Your task to perform on an android device: open app "Gboard" (install if not already installed) Image 0: 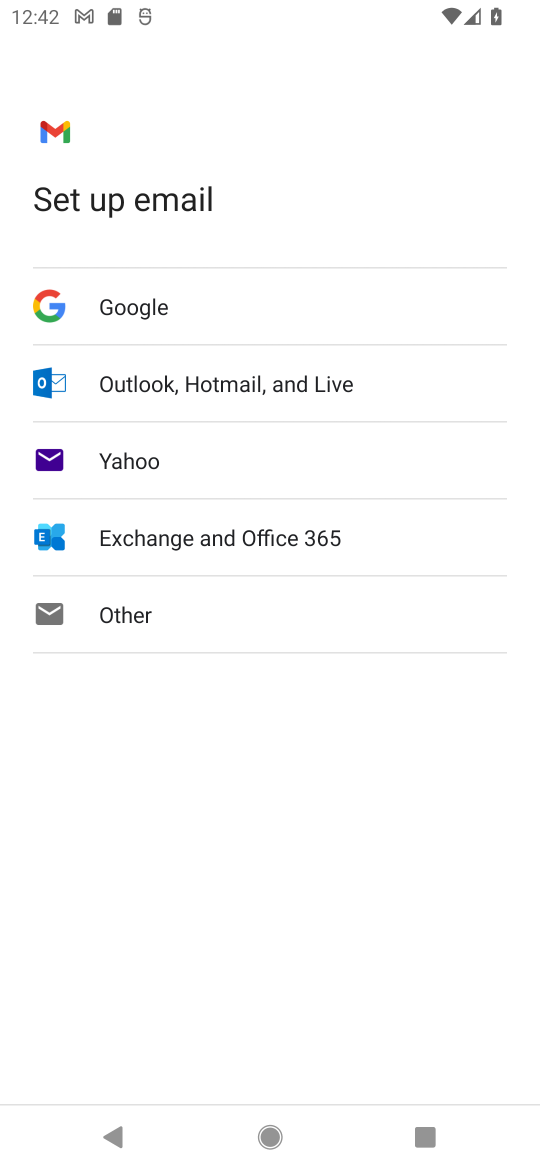
Step 0: press home button
Your task to perform on an android device: open app "Gboard" (install if not already installed) Image 1: 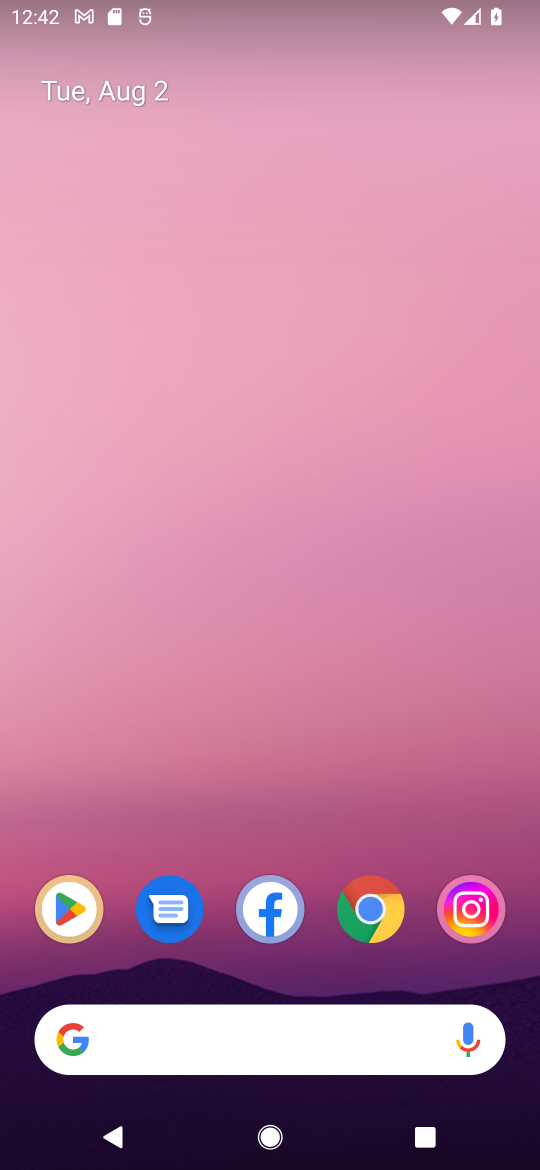
Step 1: click (65, 916)
Your task to perform on an android device: open app "Gboard" (install if not already installed) Image 2: 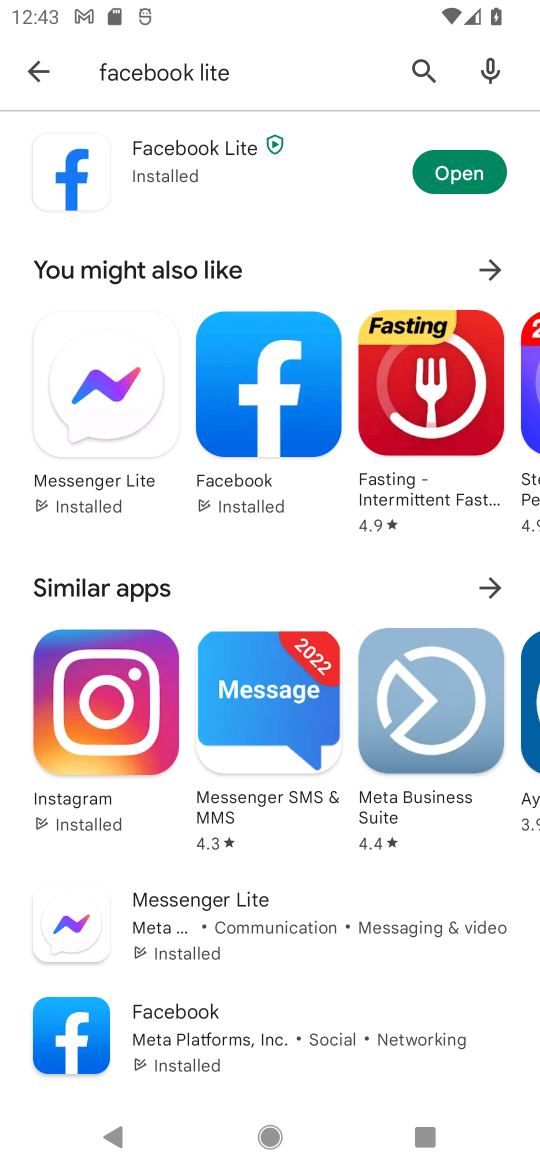
Step 2: click (415, 72)
Your task to perform on an android device: open app "Gboard" (install if not already installed) Image 3: 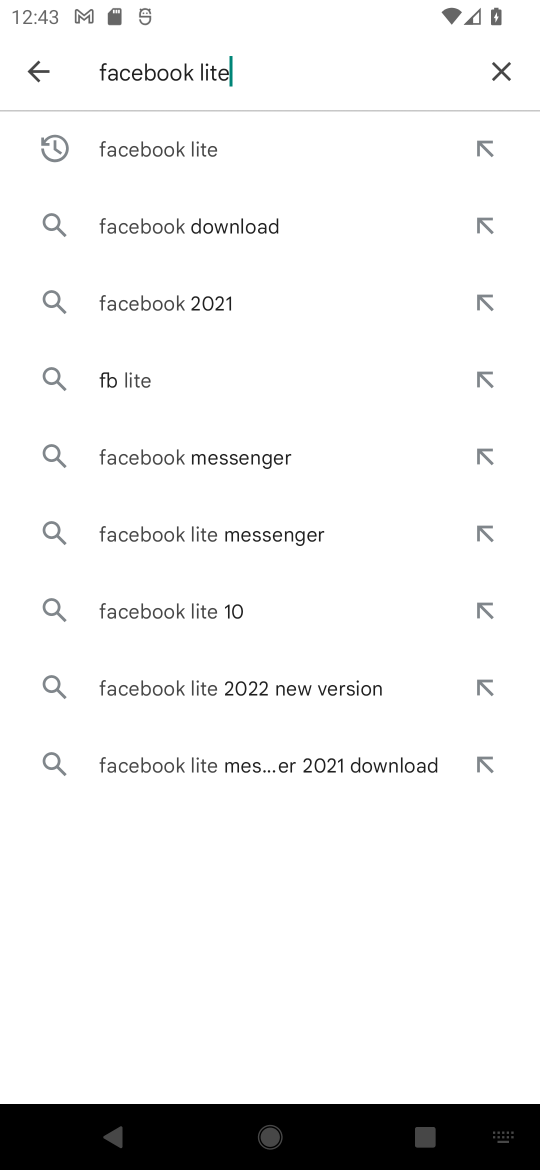
Step 3: click (518, 60)
Your task to perform on an android device: open app "Gboard" (install if not already installed) Image 4: 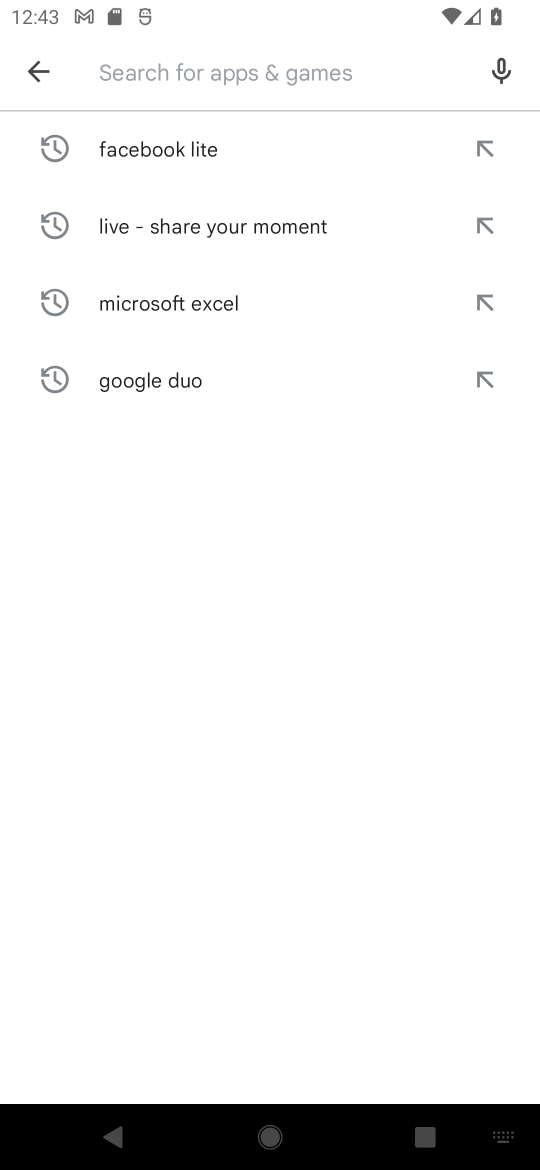
Step 4: type "Gboard"
Your task to perform on an android device: open app "Gboard" (install if not already installed) Image 5: 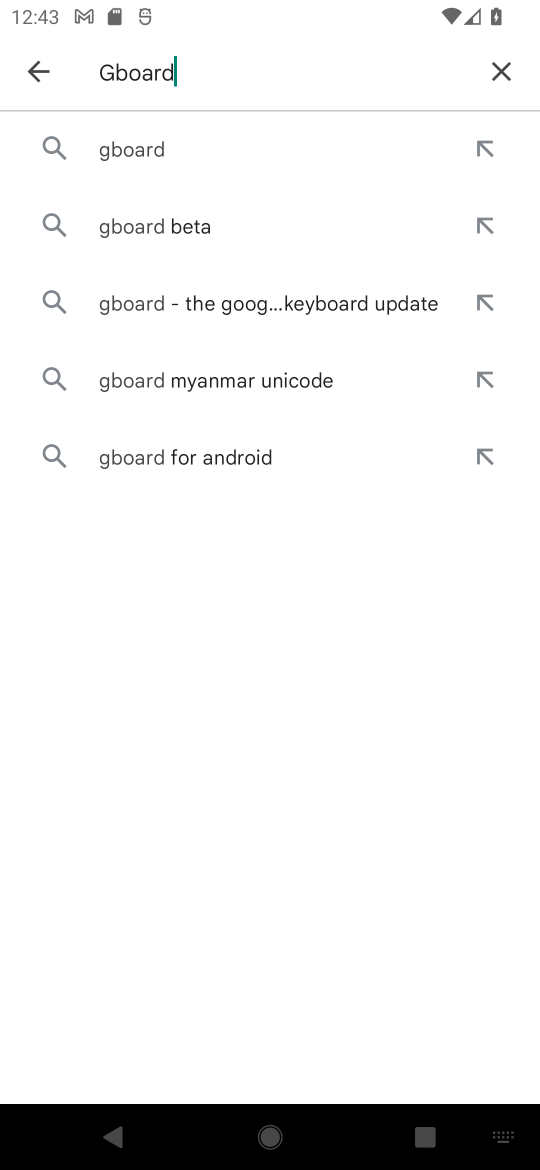
Step 5: click (130, 139)
Your task to perform on an android device: open app "Gboard" (install if not already installed) Image 6: 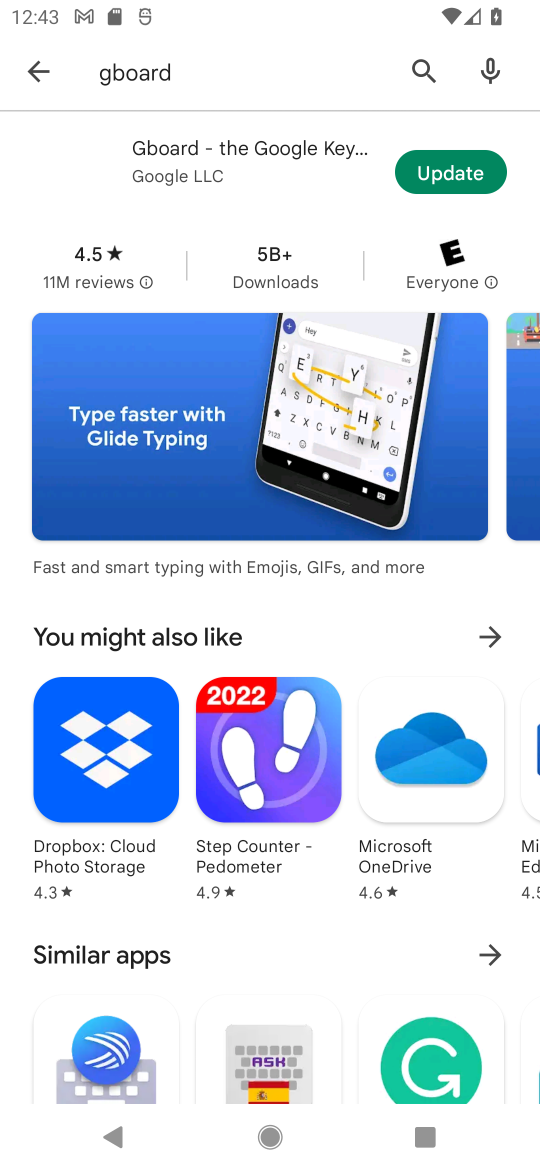
Step 6: click (198, 147)
Your task to perform on an android device: open app "Gboard" (install if not already installed) Image 7: 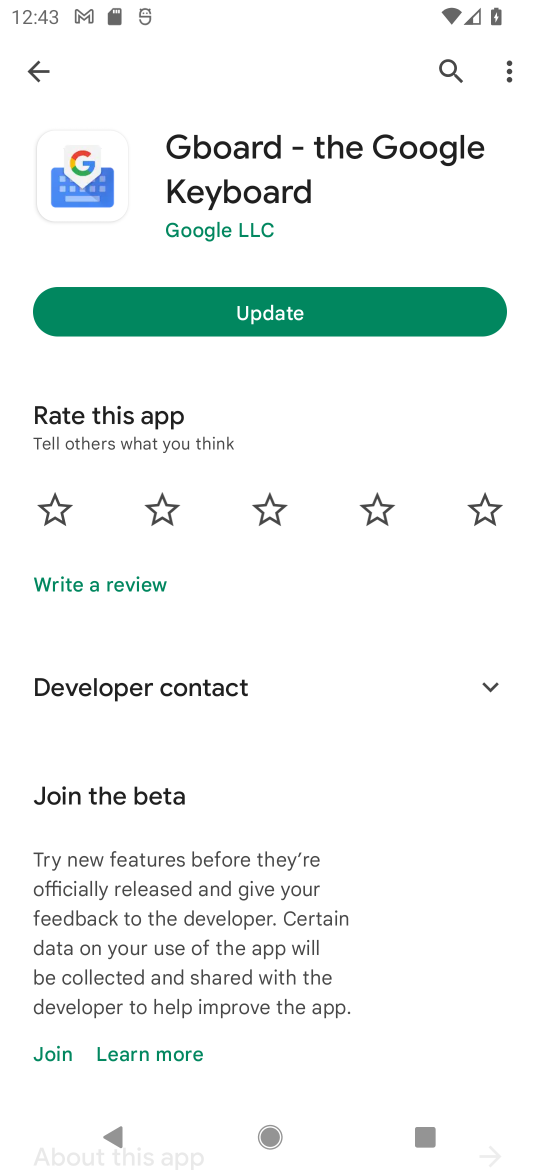
Step 7: click (251, 176)
Your task to perform on an android device: open app "Gboard" (install if not already installed) Image 8: 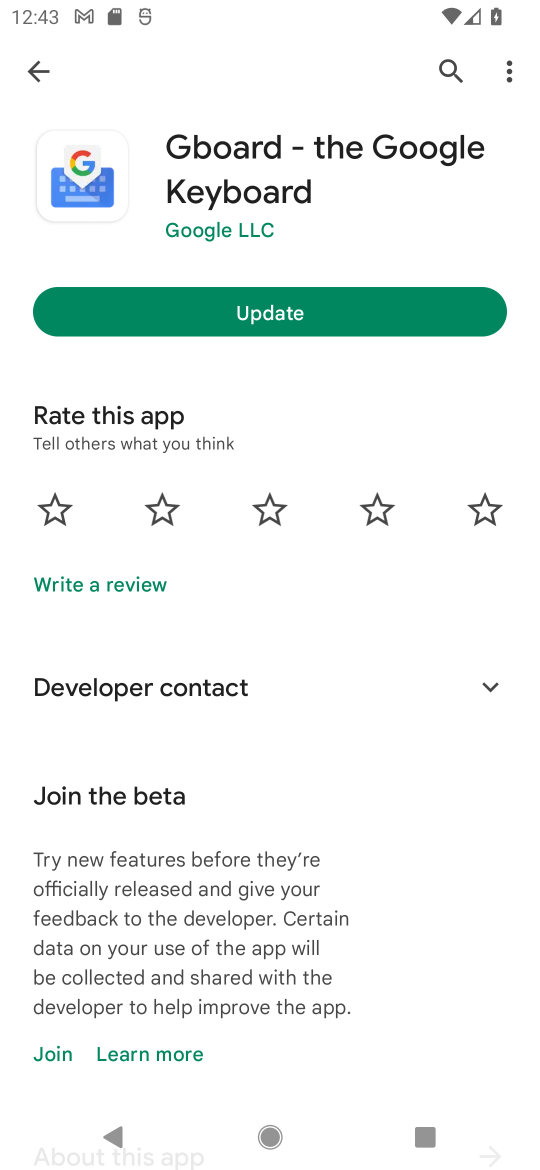
Step 8: click (251, 176)
Your task to perform on an android device: open app "Gboard" (install if not already installed) Image 9: 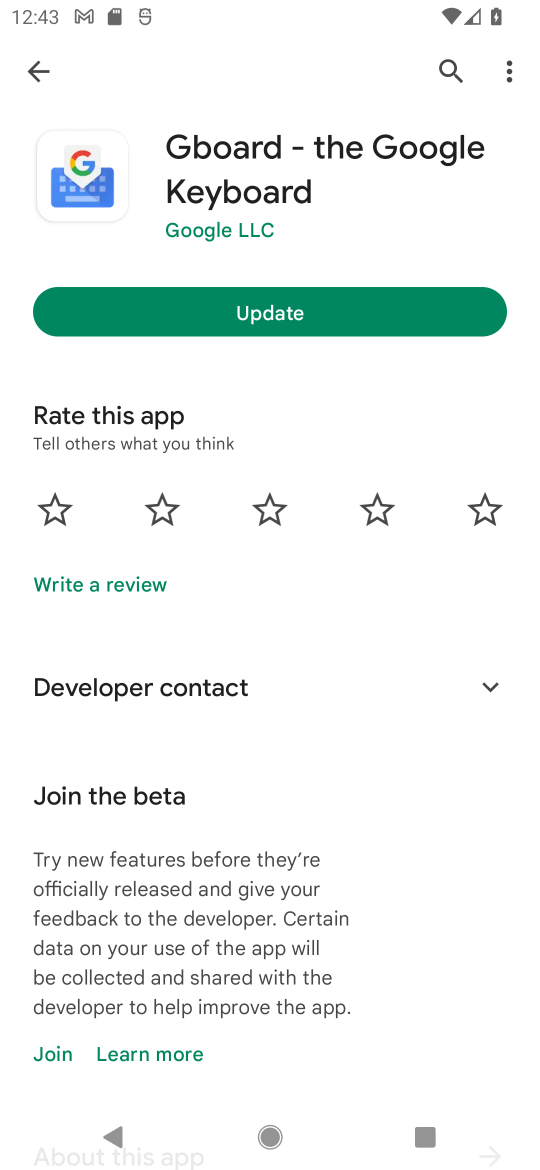
Step 9: click (103, 182)
Your task to perform on an android device: open app "Gboard" (install if not already installed) Image 10: 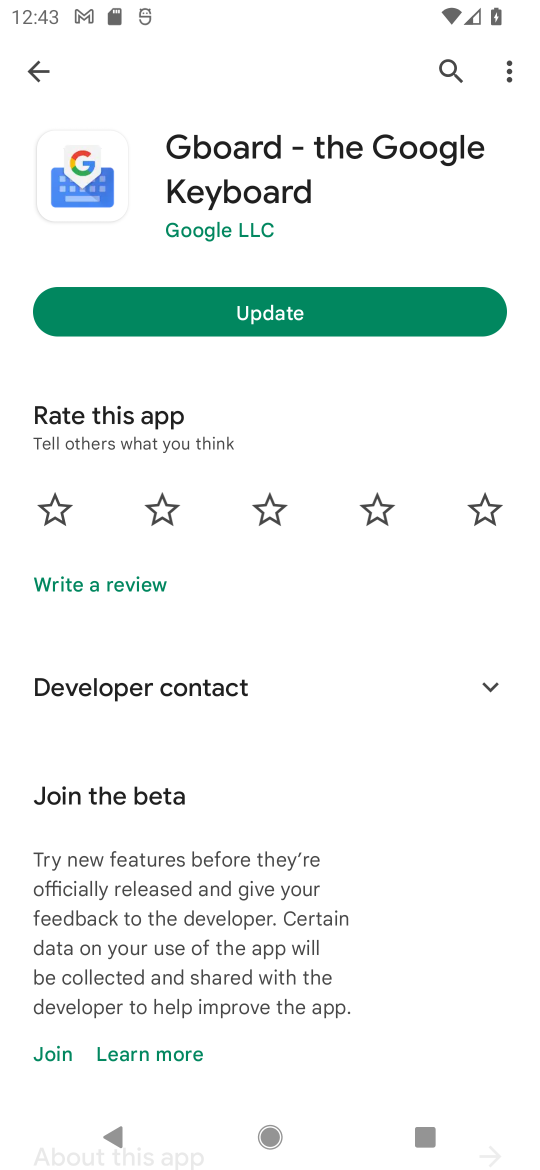
Step 10: click (103, 182)
Your task to perform on an android device: open app "Gboard" (install if not already installed) Image 11: 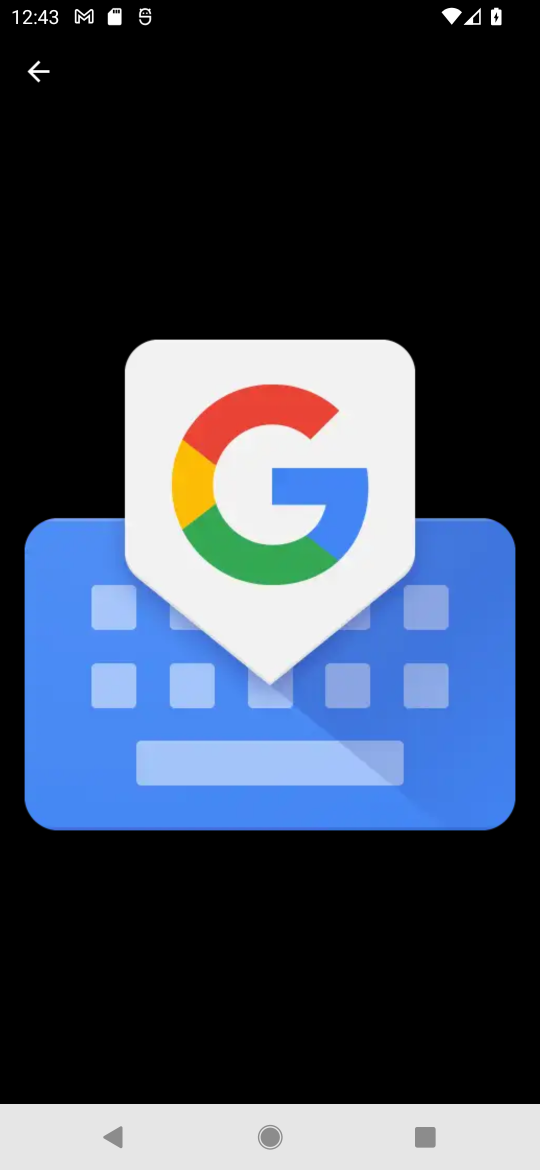
Step 11: click (103, 182)
Your task to perform on an android device: open app "Gboard" (install if not already installed) Image 12: 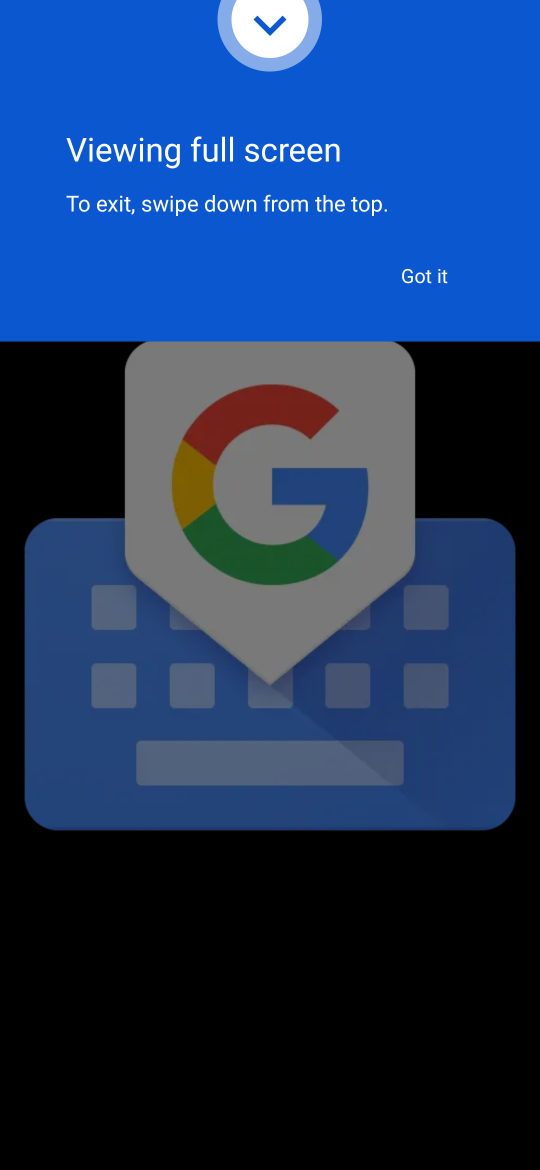
Step 12: click (439, 273)
Your task to perform on an android device: open app "Gboard" (install if not already installed) Image 13: 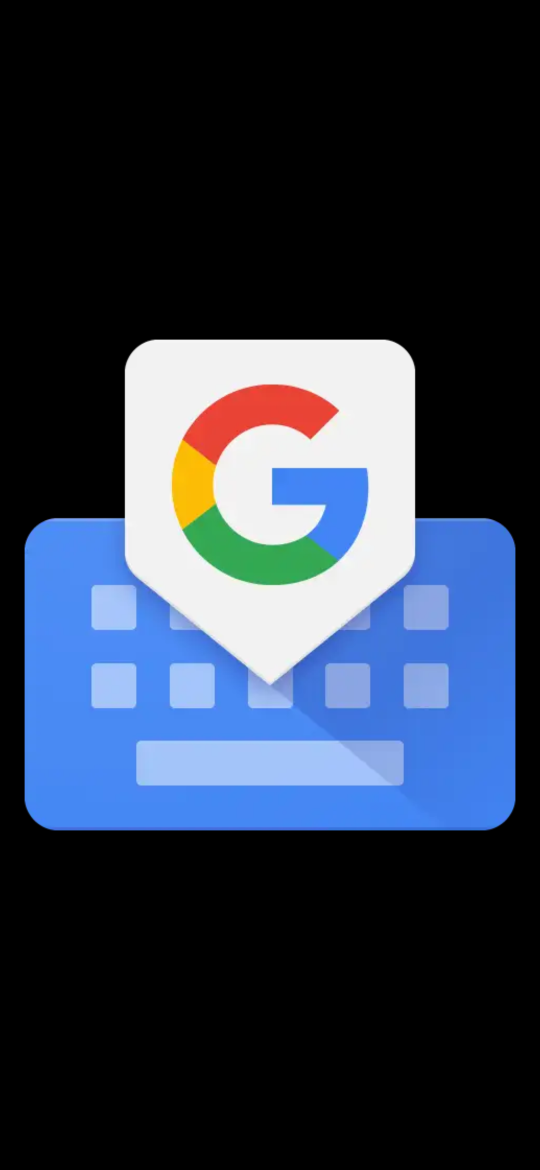
Step 13: task complete